Your task to perform on an android device: Turn on the flashlight Image 0: 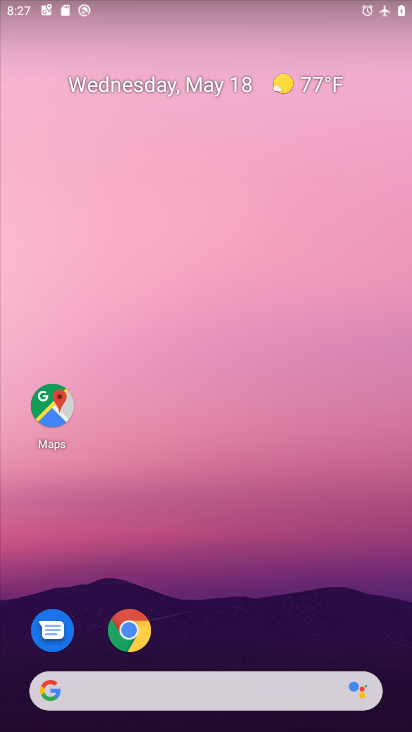
Step 0: drag from (293, 642) to (278, 139)
Your task to perform on an android device: Turn on the flashlight Image 1: 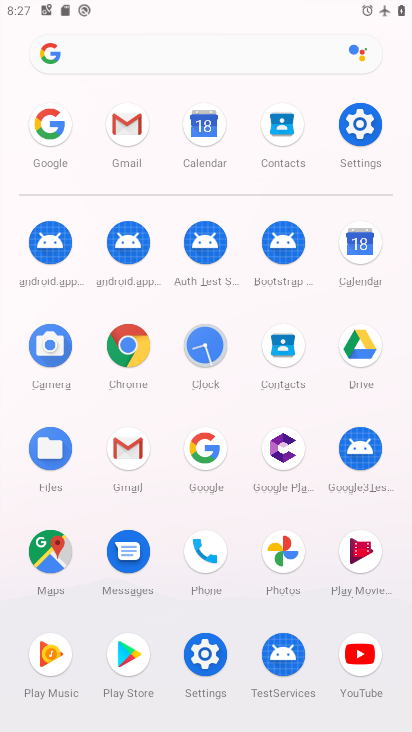
Step 1: click (351, 133)
Your task to perform on an android device: Turn on the flashlight Image 2: 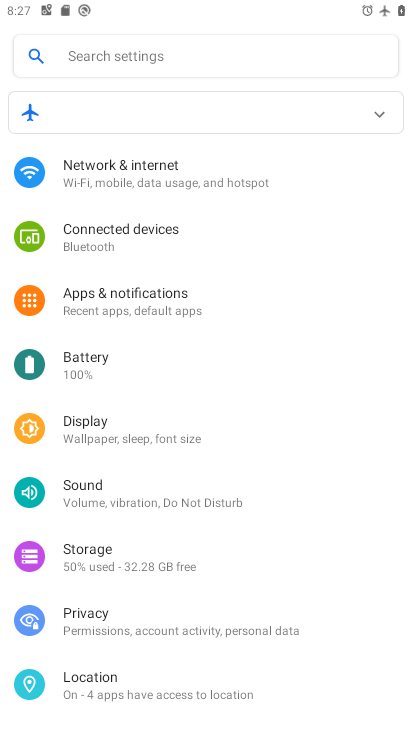
Step 2: click (156, 55)
Your task to perform on an android device: Turn on the flashlight Image 3: 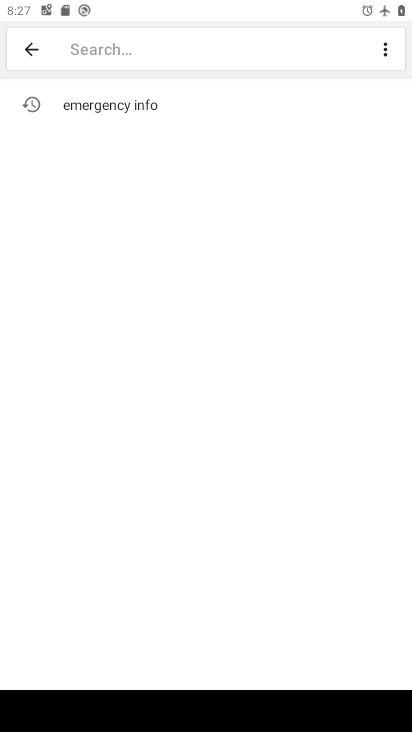
Step 3: type "flashlight"
Your task to perform on an android device: Turn on the flashlight Image 4: 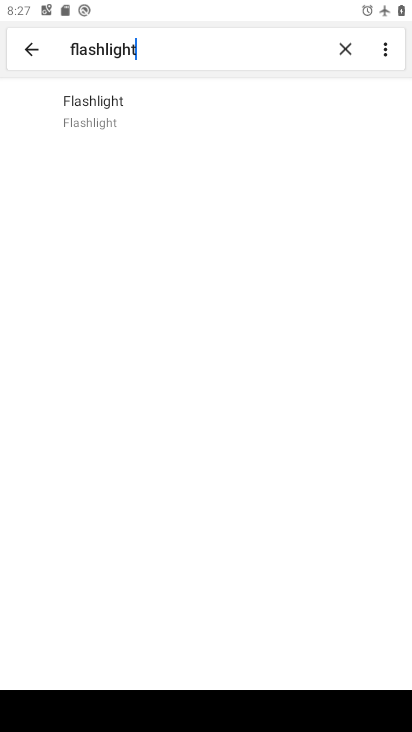
Step 4: click (115, 108)
Your task to perform on an android device: Turn on the flashlight Image 5: 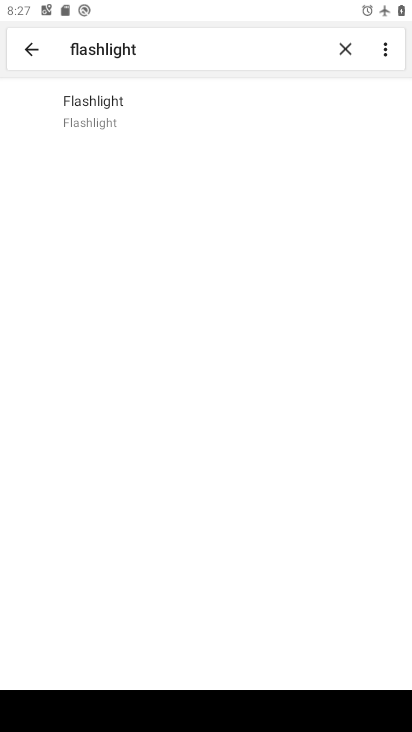
Step 5: click (100, 116)
Your task to perform on an android device: Turn on the flashlight Image 6: 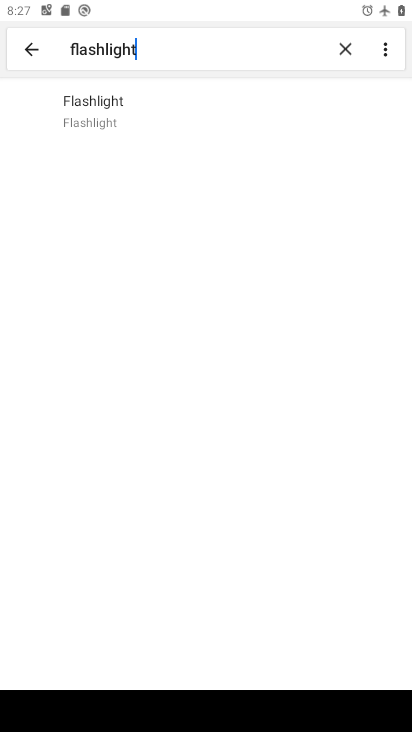
Step 6: task complete